Your task to perform on an android device: turn on location history Image 0: 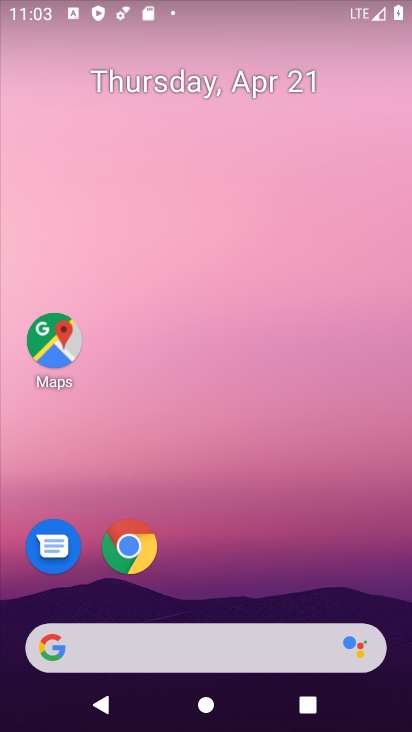
Step 0: click (48, 336)
Your task to perform on an android device: turn on location history Image 1: 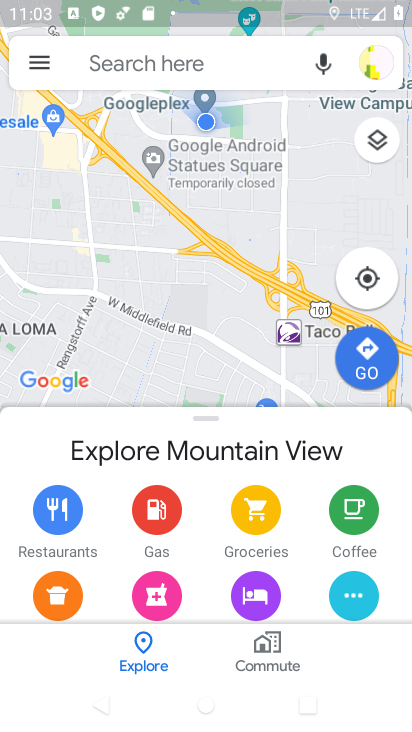
Step 1: click (43, 60)
Your task to perform on an android device: turn on location history Image 2: 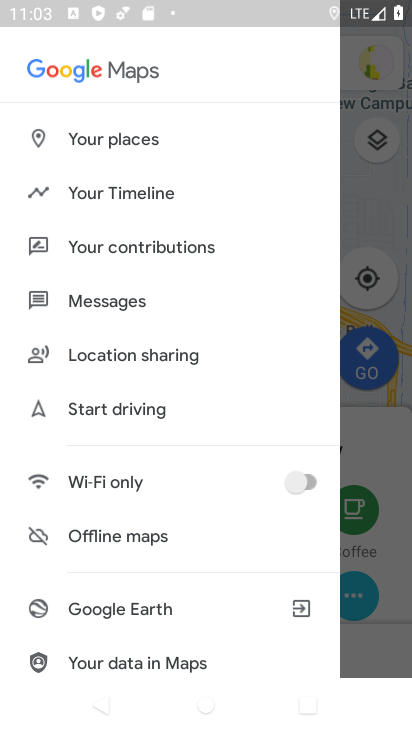
Step 2: drag from (172, 596) to (176, 299)
Your task to perform on an android device: turn on location history Image 3: 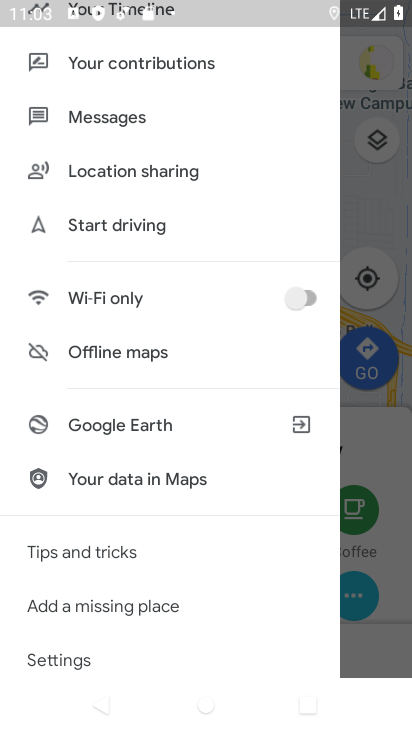
Step 3: drag from (200, 588) to (228, 186)
Your task to perform on an android device: turn on location history Image 4: 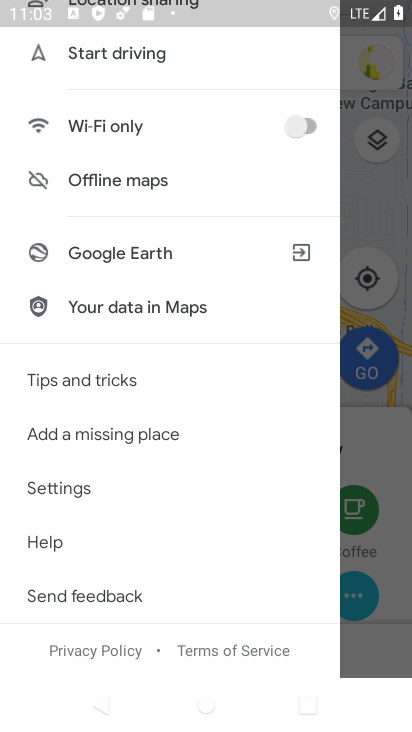
Step 4: click (40, 487)
Your task to perform on an android device: turn on location history Image 5: 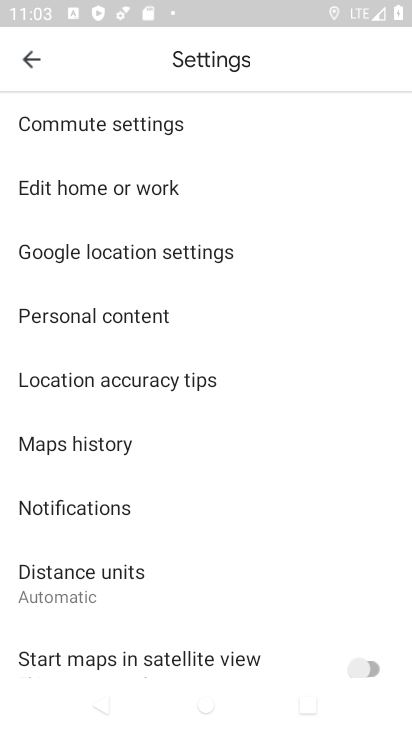
Step 5: click (84, 316)
Your task to perform on an android device: turn on location history Image 6: 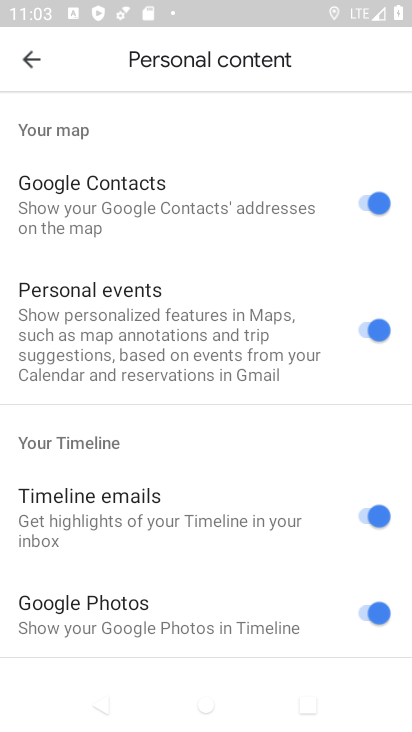
Step 6: drag from (293, 592) to (298, 229)
Your task to perform on an android device: turn on location history Image 7: 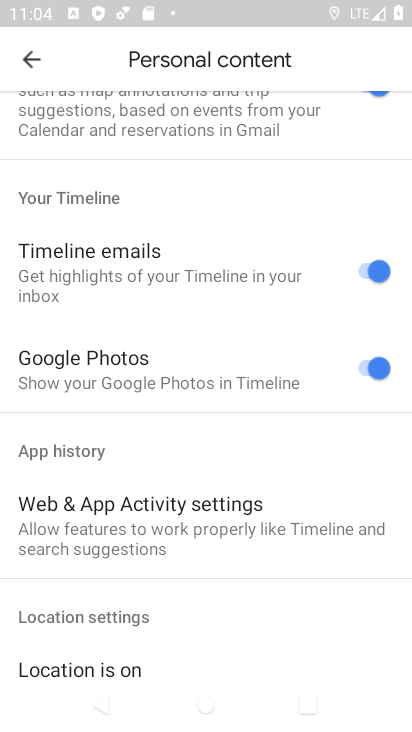
Step 7: drag from (280, 613) to (297, 217)
Your task to perform on an android device: turn on location history Image 8: 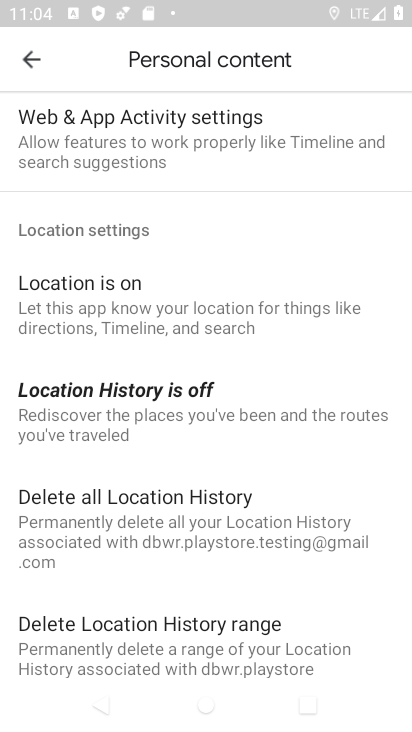
Step 8: click (101, 412)
Your task to perform on an android device: turn on location history Image 9: 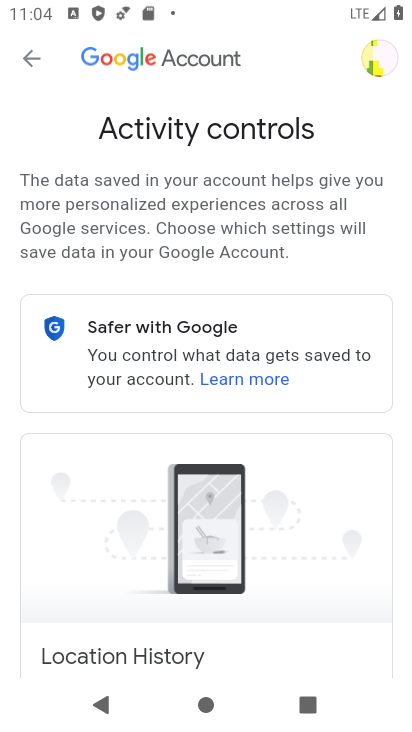
Step 9: drag from (265, 569) to (273, 164)
Your task to perform on an android device: turn on location history Image 10: 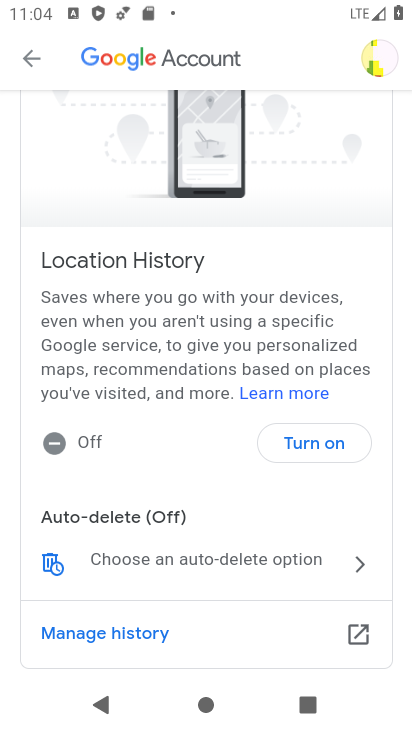
Step 10: click (308, 443)
Your task to perform on an android device: turn on location history Image 11: 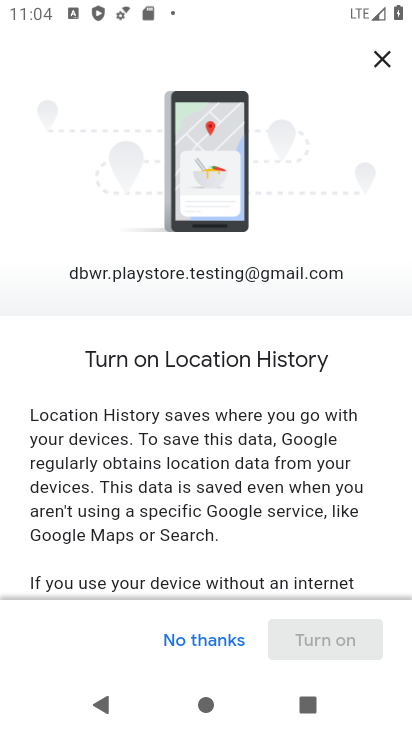
Step 11: drag from (265, 536) to (239, 56)
Your task to perform on an android device: turn on location history Image 12: 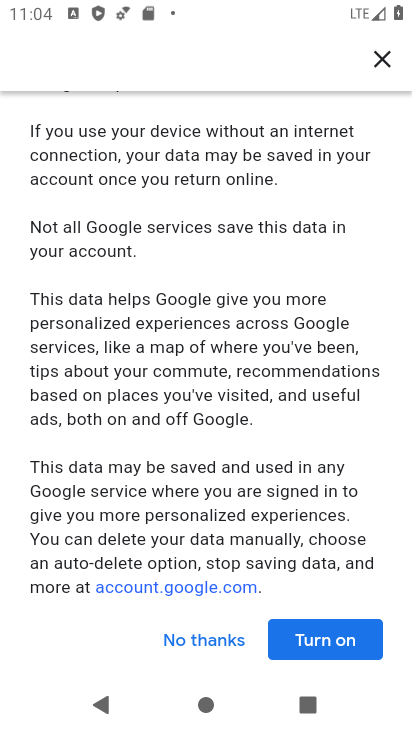
Step 12: click (322, 640)
Your task to perform on an android device: turn on location history Image 13: 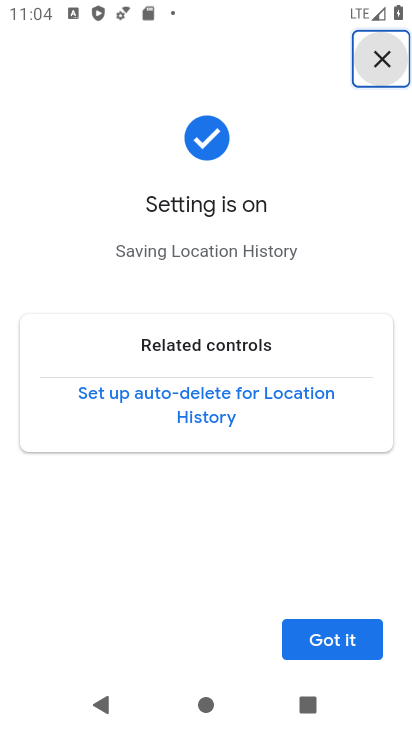
Step 13: click (330, 641)
Your task to perform on an android device: turn on location history Image 14: 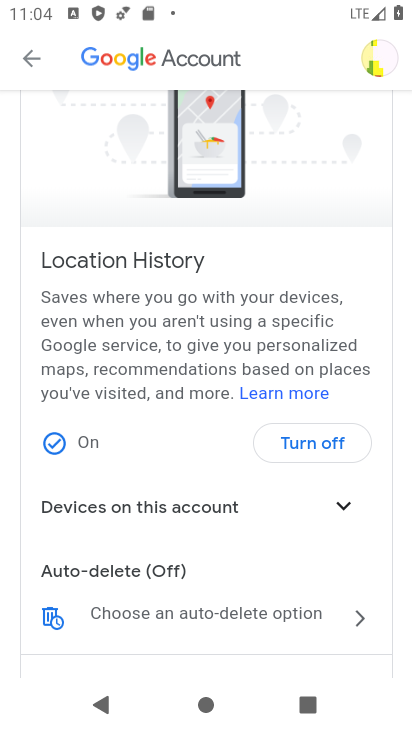
Step 14: task complete